Your task to perform on an android device: all mails in gmail Image 0: 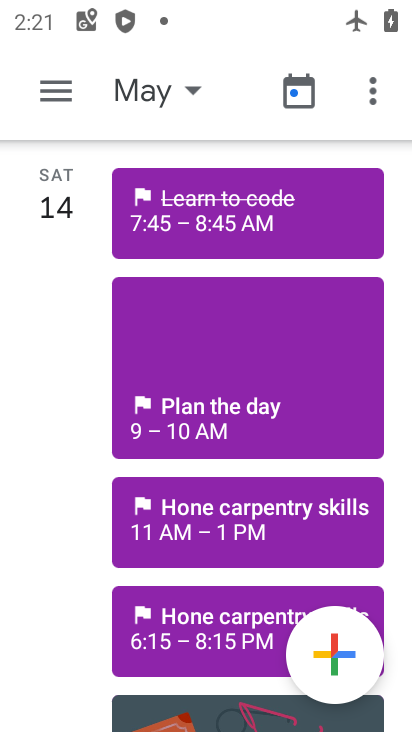
Step 0: press home button
Your task to perform on an android device: all mails in gmail Image 1: 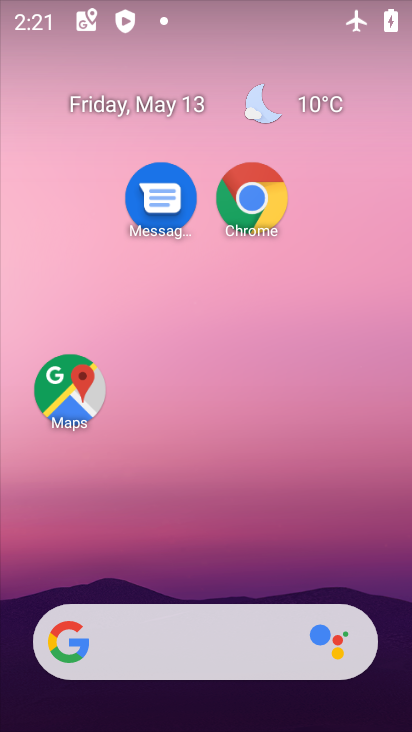
Step 1: drag from (208, 597) to (244, 32)
Your task to perform on an android device: all mails in gmail Image 2: 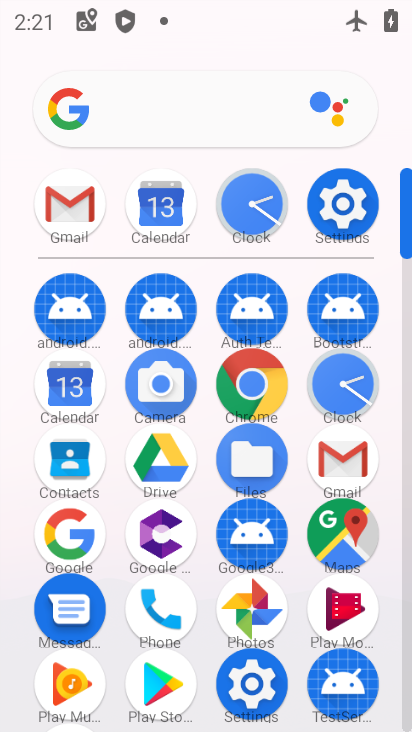
Step 2: click (341, 462)
Your task to perform on an android device: all mails in gmail Image 3: 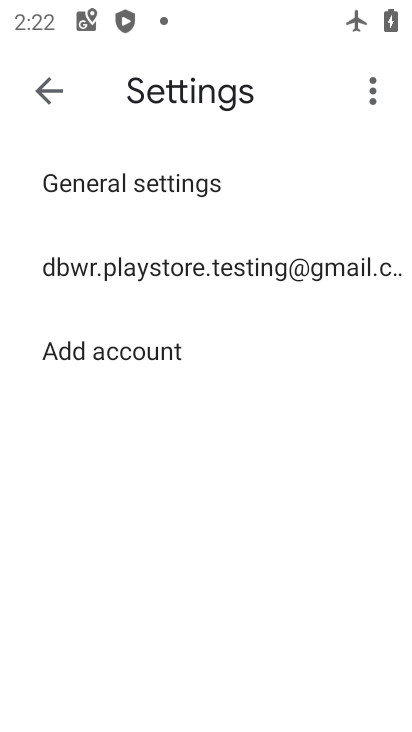
Step 3: click (61, 90)
Your task to perform on an android device: all mails in gmail Image 4: 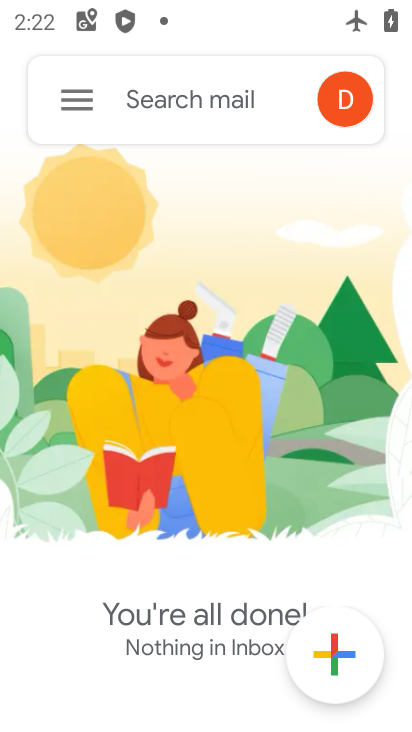
Step 4: click (62, 89)
Your task to perform on an android device: all mails in gmail Image 5: 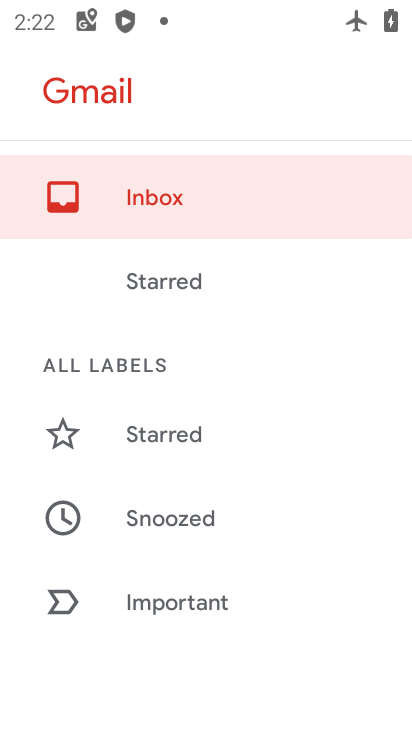
Step 5: drag from (173, 511) to (160, 184)
Your task to perform on an android device: all mails in gmail Image 6: 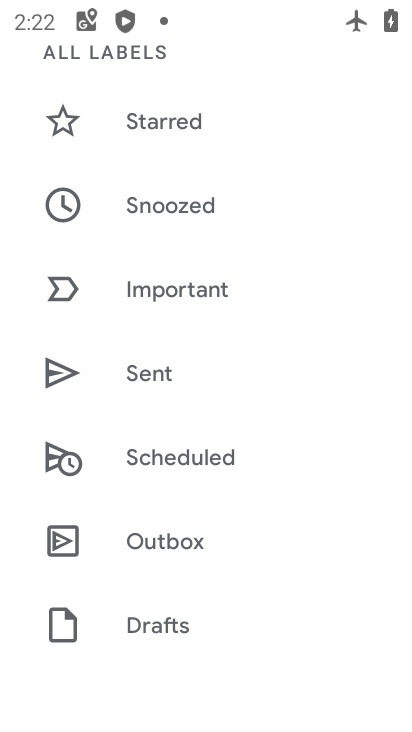
Step 6: drag from (210, 547) to (205, 176)
Your task to perform on an android device: all mails in gmail Image 7: 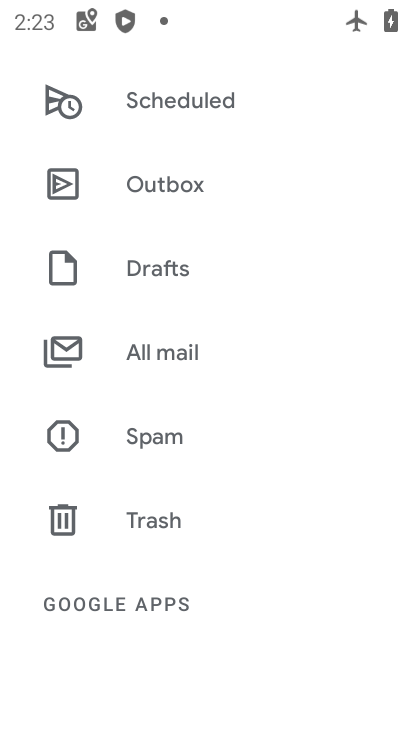
Step 7: click (160, 349)
Your task to perform on an android device: all mails in gmail Image 8: 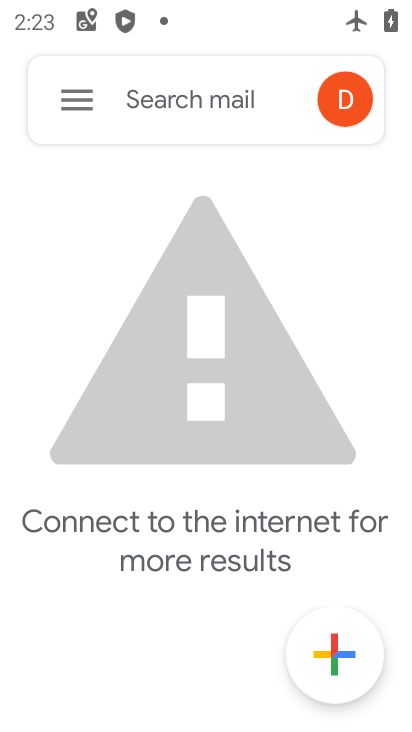
Step 8: task complete